Your task to perform on an android device: delete the emails in spam in the gmail app Image 0: 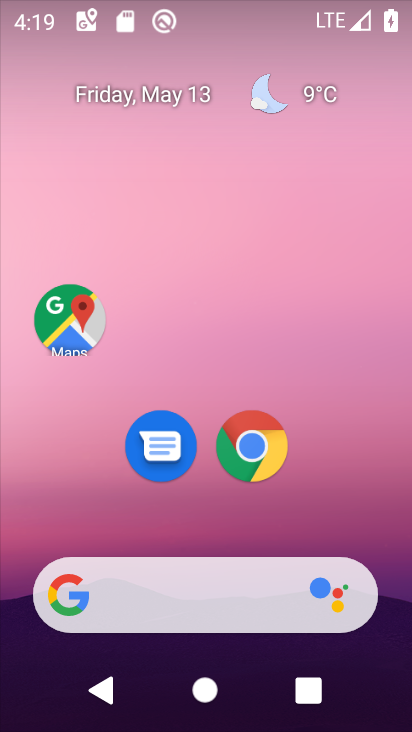
Step 0: drag from (207, 526) to (249, 26)
Your task to perform on an android device: delete the emails in spam in the gmail app Image 1: 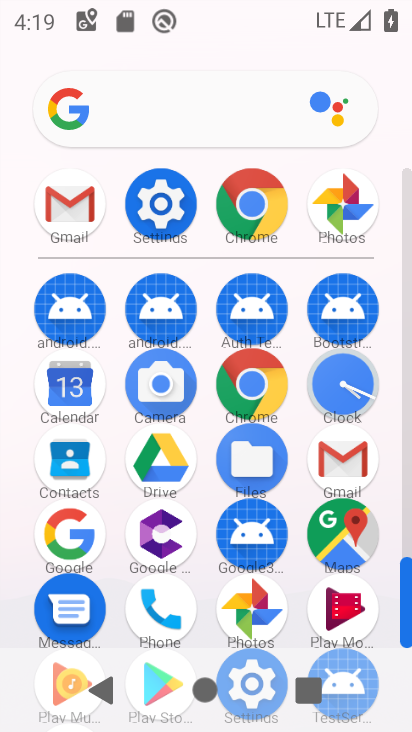
Step 1: click (350, 462)
Your task to perform on an android device: delete the emails in spam in the gmail app Image 2: 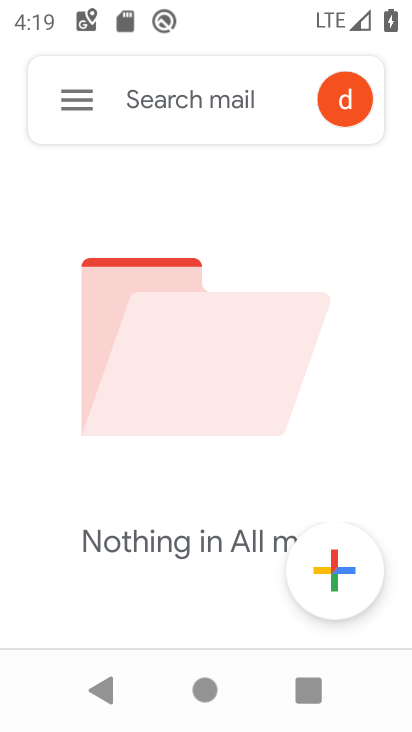
Step 2: click (82, 94)
Your task to perform on an android device: delete the emails in spam in the gmail app Image 3: 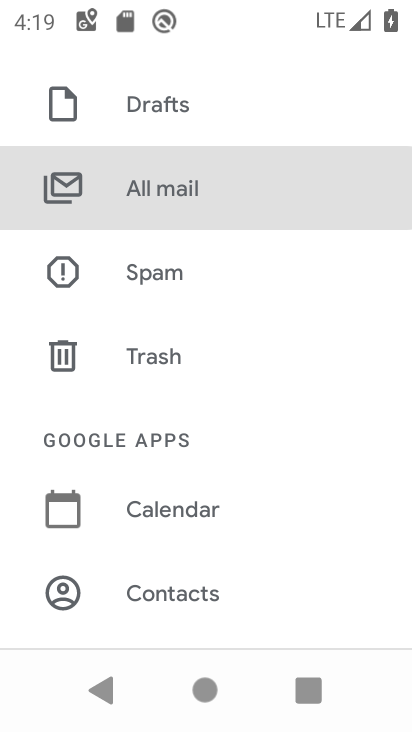
Step 3: click (157, 284)
Your task to perform on an android device: delete the emails in spam in the gmail app Image 4: 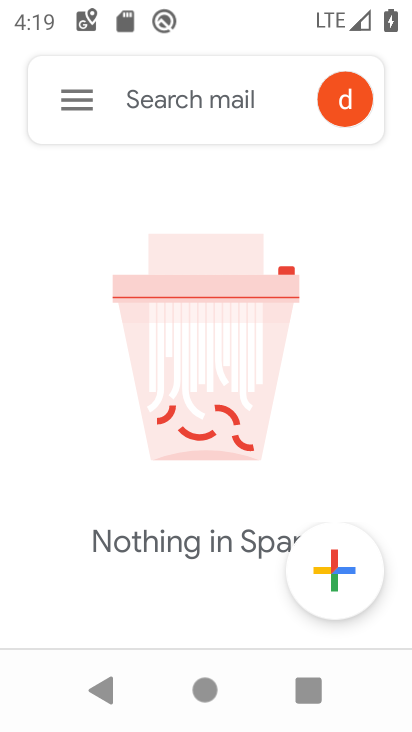
Step 4: task complete